Your task to perform on an android device: Open sound settings Image 0: 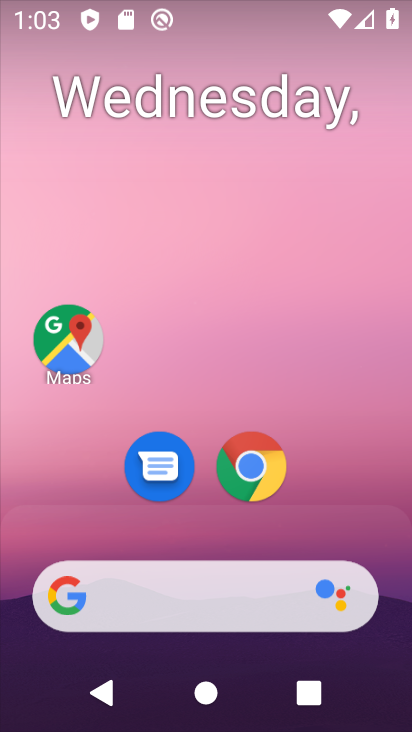
Step 0: press home button
Your task to perform on an android device: Open sound settings Image 1: 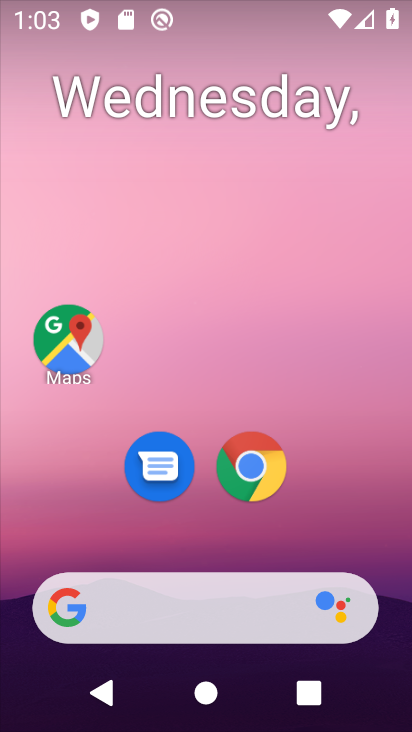
Step 1: press home button
Your task to perform on an android device: Open sound settings Image 2: 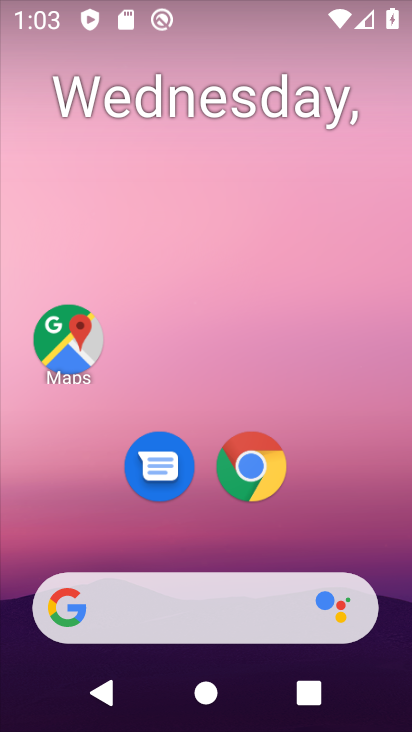
Step 2: drag from (356, 525) to (364, 113)
Your task to perform on an android device: Open sound settings Image 3: 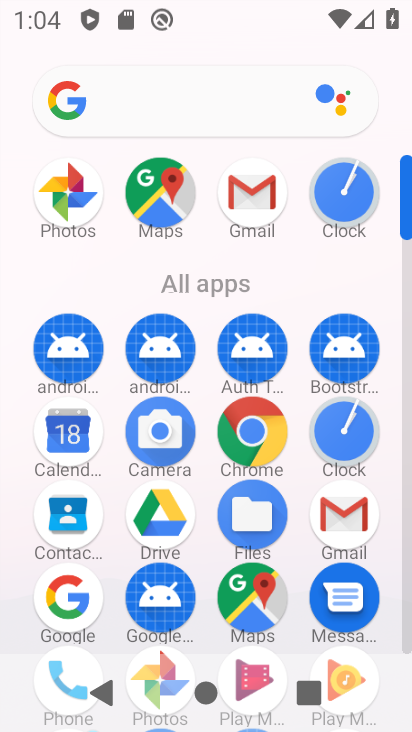
Step 3: click (403, 651)
Your task to perform on an android device: Open sound settings Image 4: 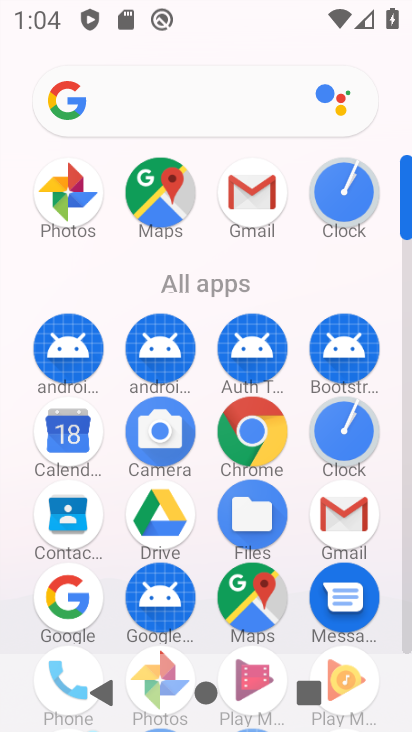
Step 4: click (403, 651)
Your task to perform on an android device: Open sound settings Image 5: 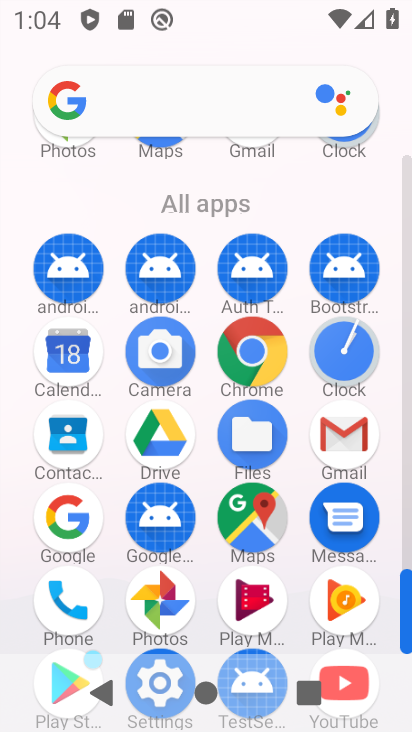
Step 5: click (403, 651)
Your task to perform on an android device: Open sound settings Image 6: 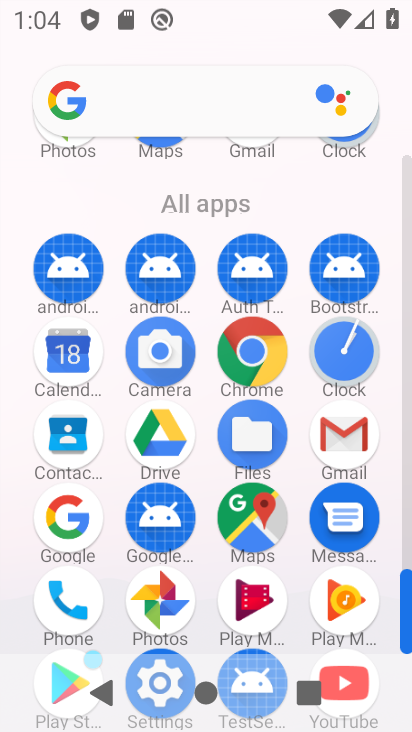
Step 6: click (403, 651)
Your task to perform on an android device: Open sound settings Image 7: 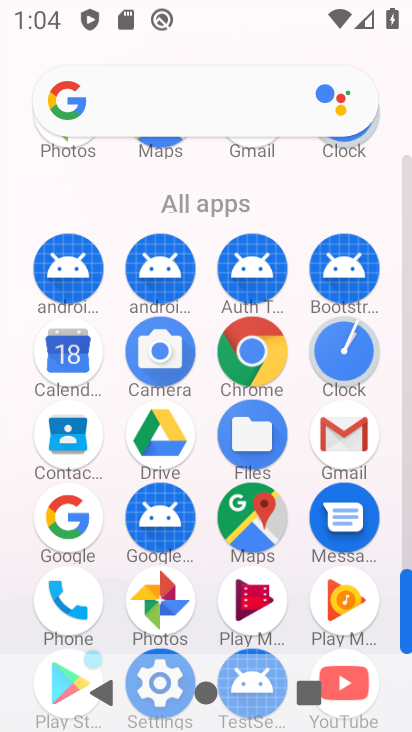
Step 7: click (403, 651)
Your task to perform on an android device: Open sound settings Image 8: 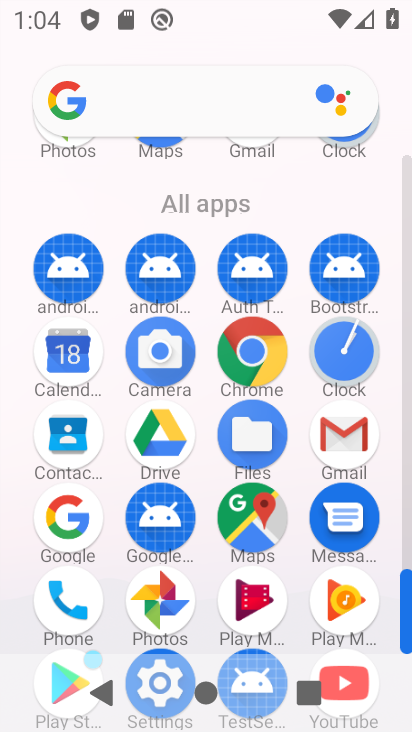
Step 8: drag from (406, 634) to (406, 672)
Your task to perform on an android device: Open sound settings Image 9: 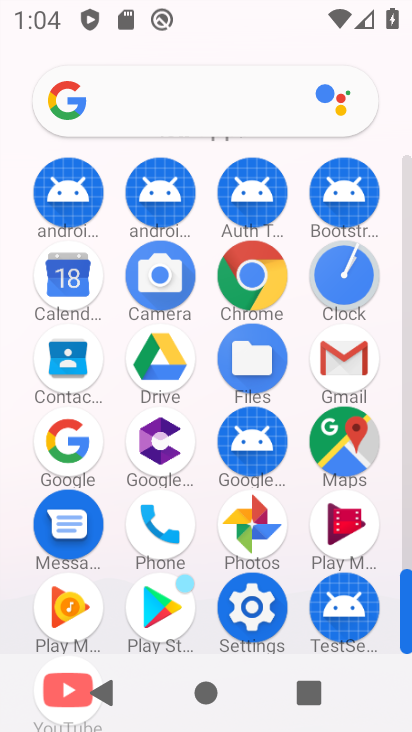
Step 9: click (234, 618)
Your task to perform on an android device: Open sound settings Image 10: 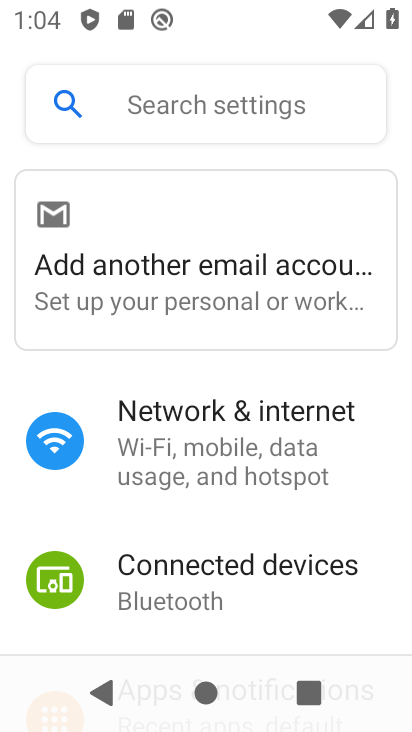
Step 10: drag from (250, 496) to (276, 230)
Your task to perform on an android device: Open sound settings Image 11: 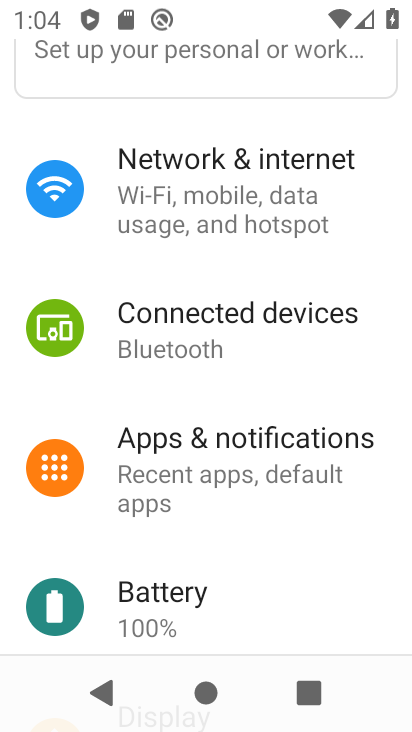
Step 11: drag from (277, 336) to (283, 223)
Your task to perform on an android device: Open sound settings Image 12: 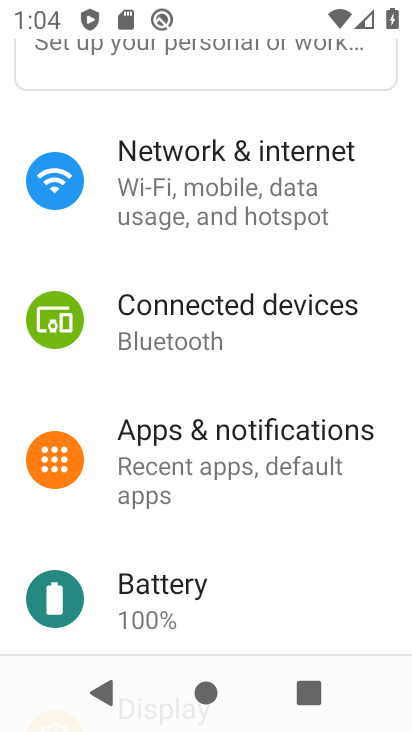
Step 12: drag from (276, 476) to (241, 253)
Your task to perform on an android device: Open sound settings Image 13: 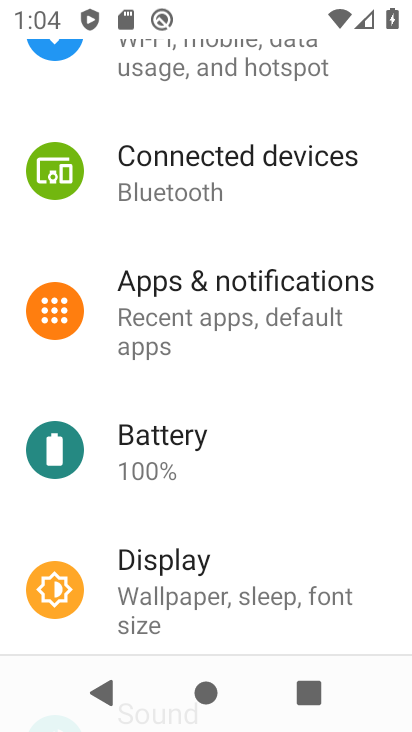
Step 13: drag from (241, 503) to (280, 342)
Your task to perform on an android device: Open sound settings Image 14: 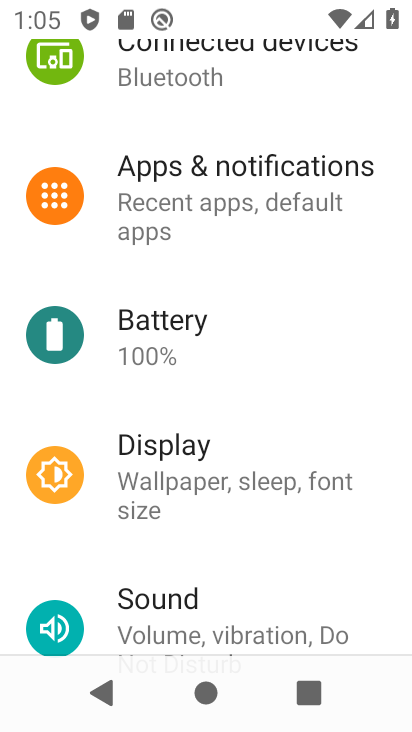
Step 14: click (170, 599)
Your task to perform on an android device: Open sound settings Image 15: 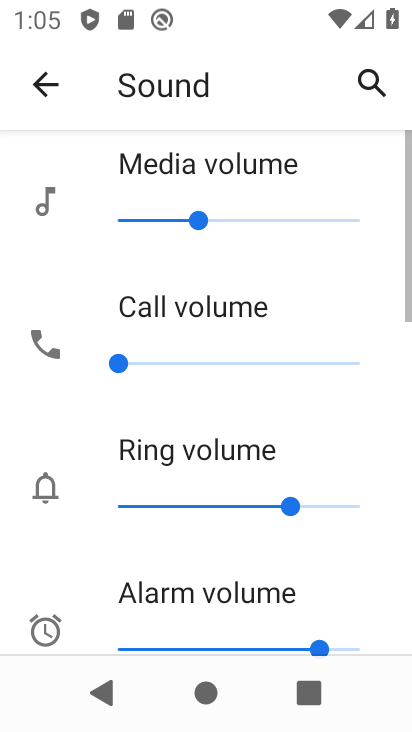
Step 15: task complete